Your task to perform on an android device: check storage Image 0: 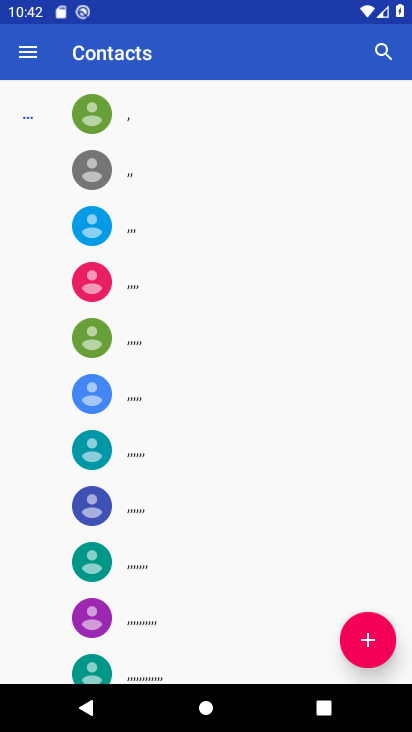
Step 0: click (248, 638)
Your task to perform on an android device: check storage Image 1: 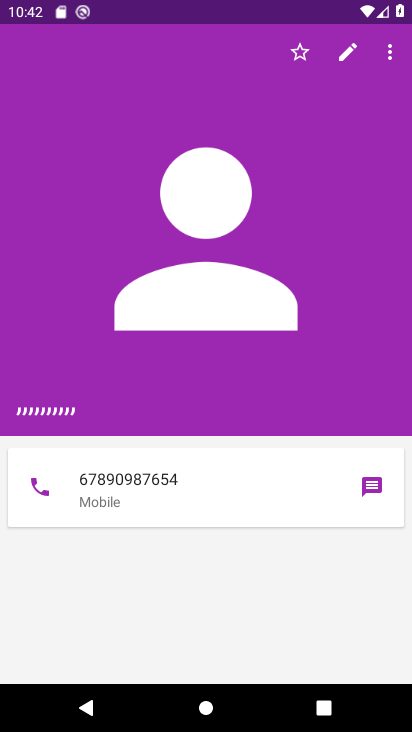
Step 1: press home button
Your task to perform on an android device: check storage Image 2: 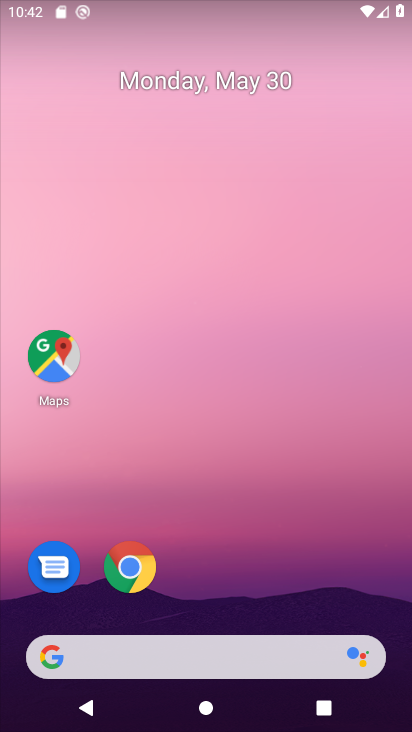
Step 2: drag from (219, 630) to (216, 214)
Your task to perform on an android device: check storage Image 3: 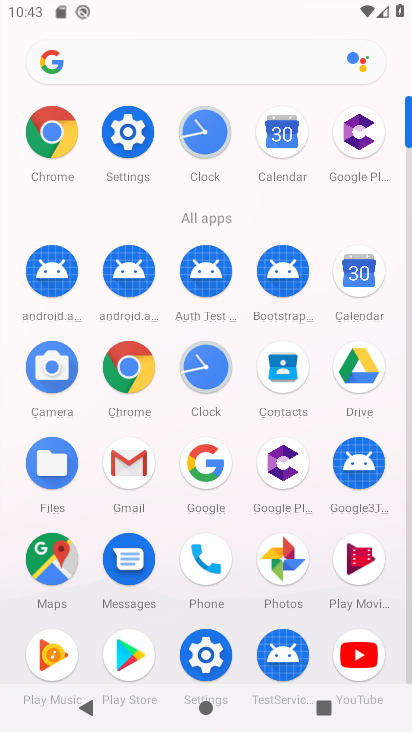
Step 3: click (132, 135)
Your task to perform on an android device: check storage Image 4: 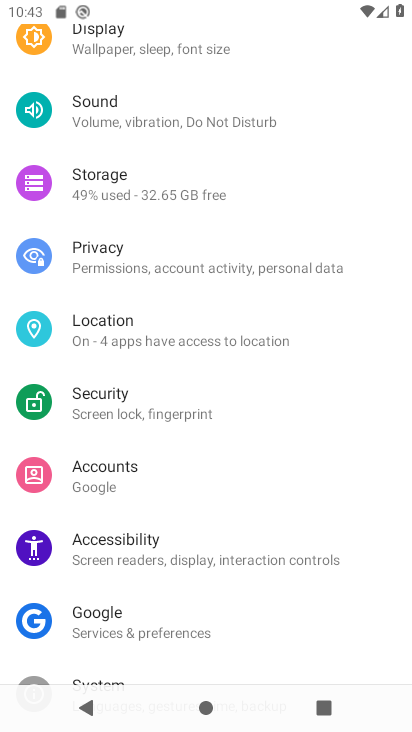
Step 4: click (118, 196)
Your task to perform on an android device: check storage Image 5: 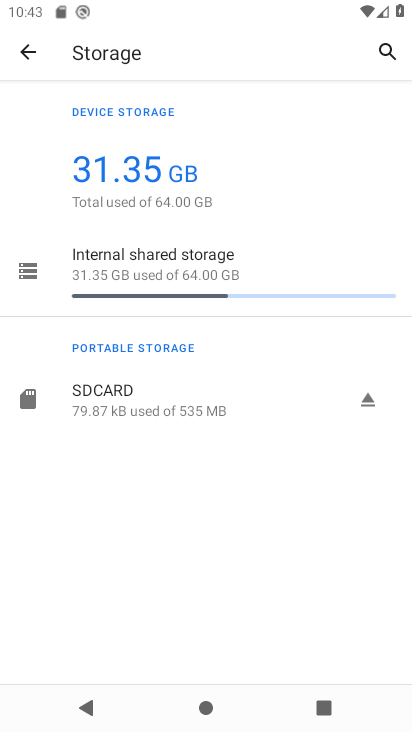
Step 5: task complete